Your task to perform on an android device: Check the weather Image 0: 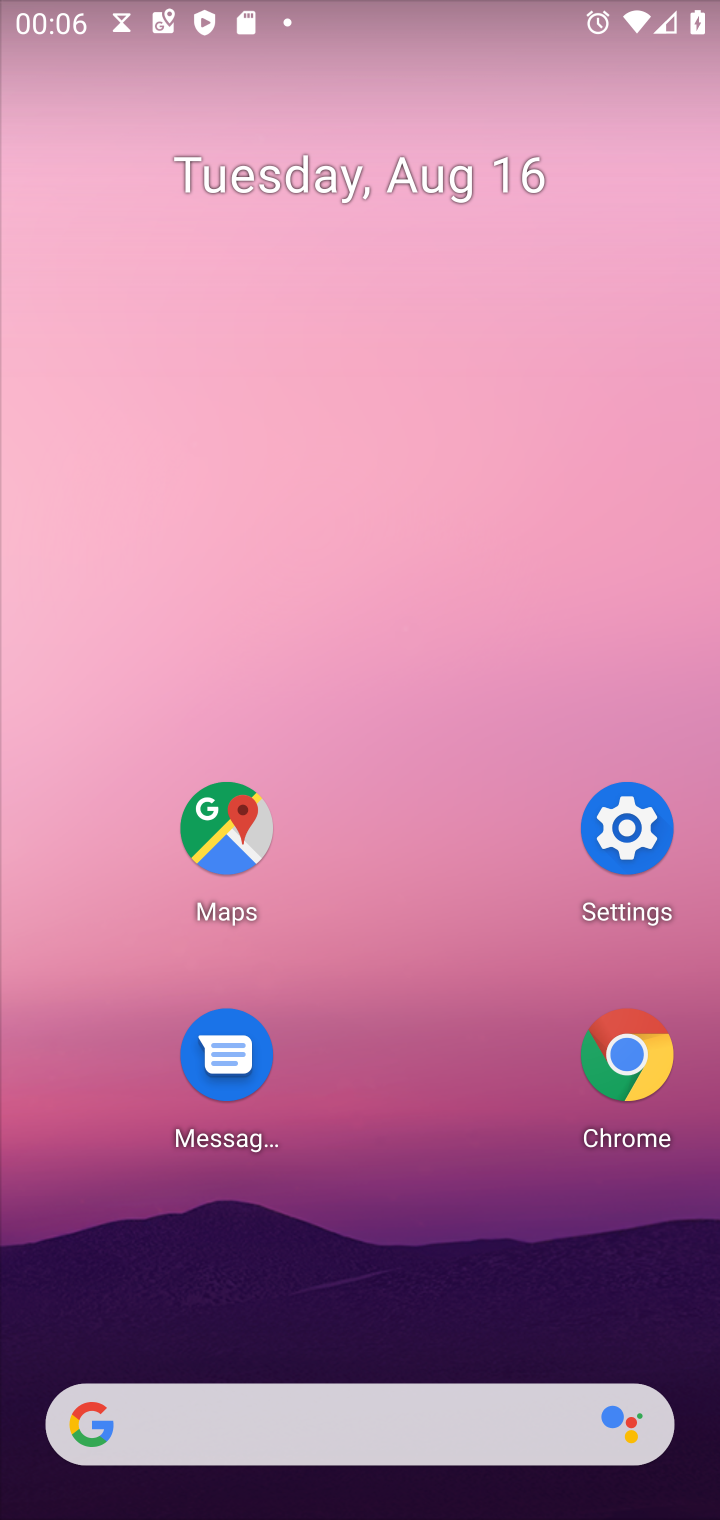
Step 0: press home button
Your task to perform on an android device: Check the weather Image 1: 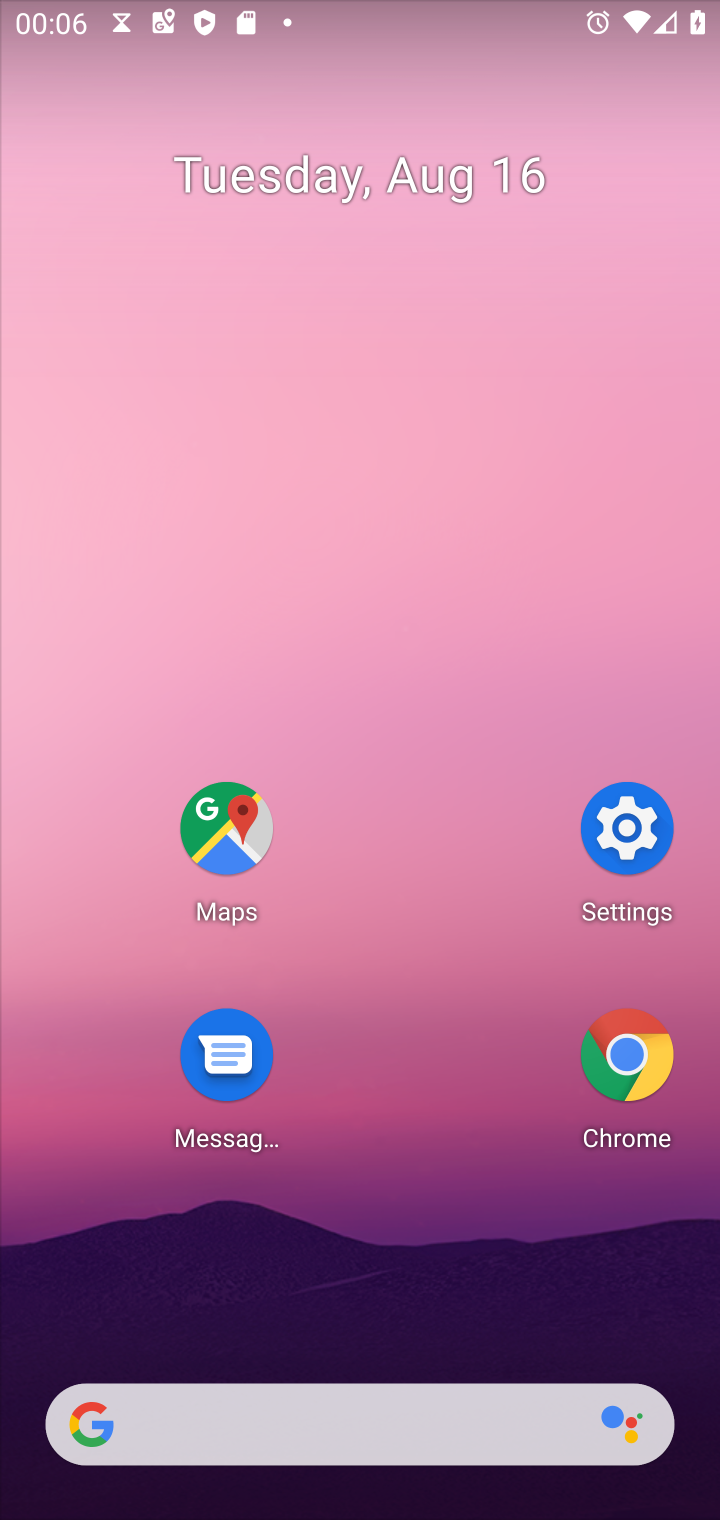
Step 1: click (304, 1425)
Your task to perform on an android device: Check the weather Image 2: 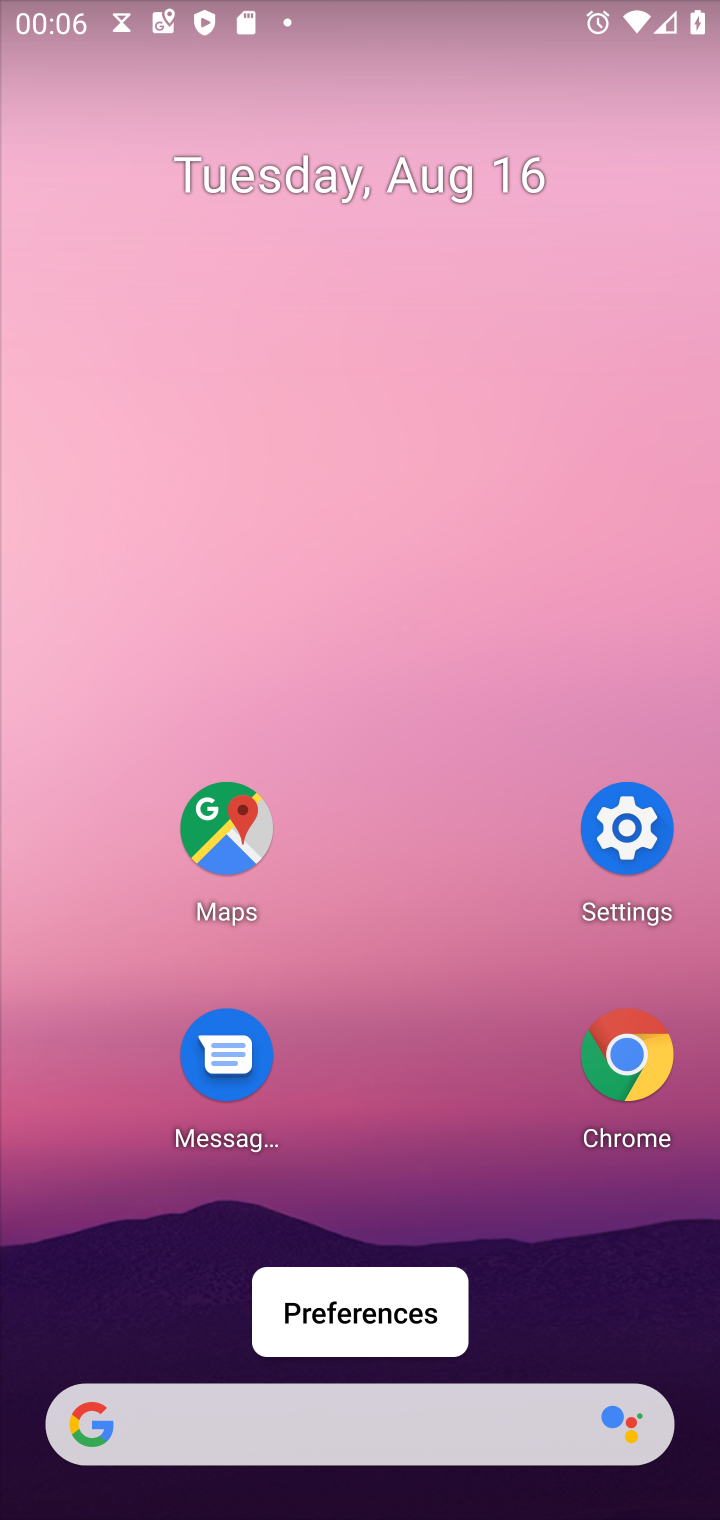
Step 2: click (296, 1430)
Your task to perform on an android device: Check the weather Image 3: 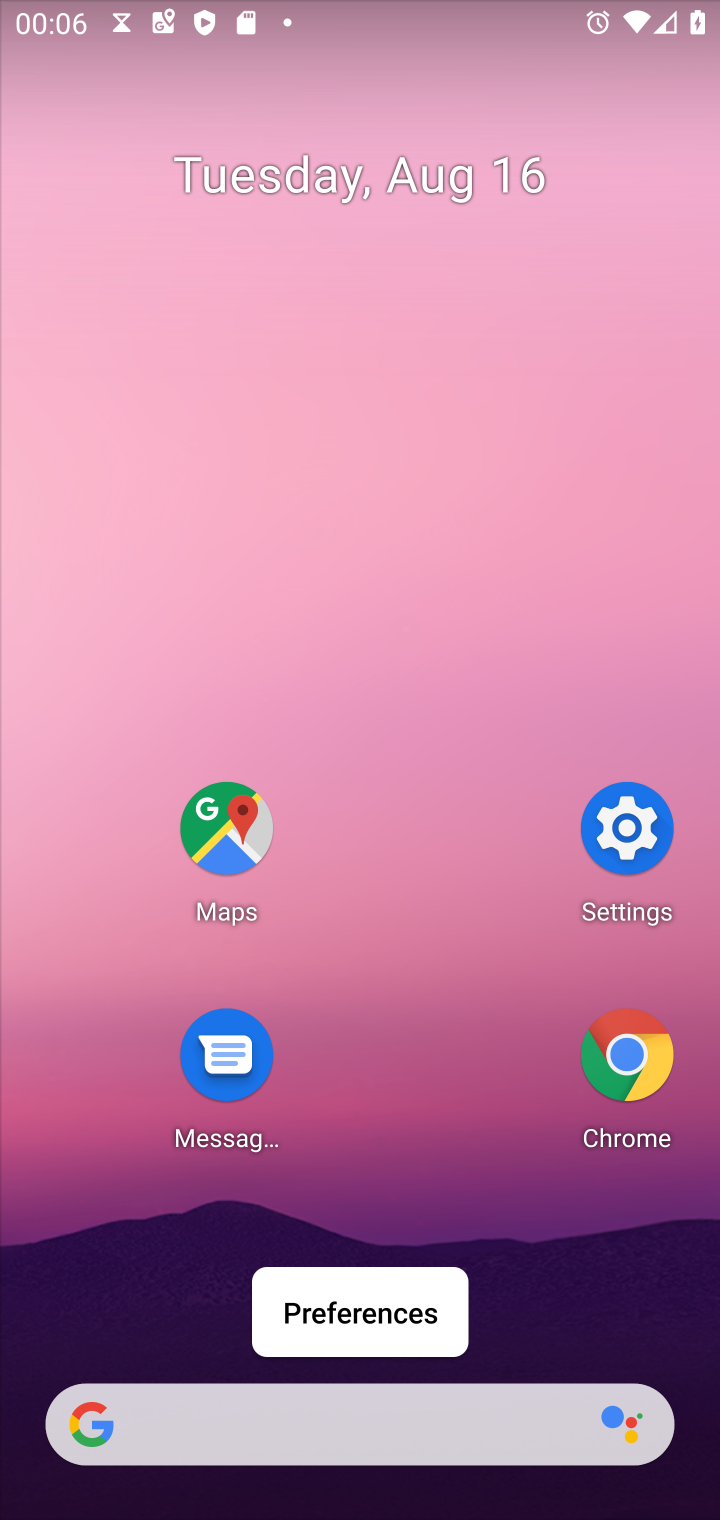
Step 3: click (296, 1430)
Your task to perform on an android device: Check the weather Image 4: 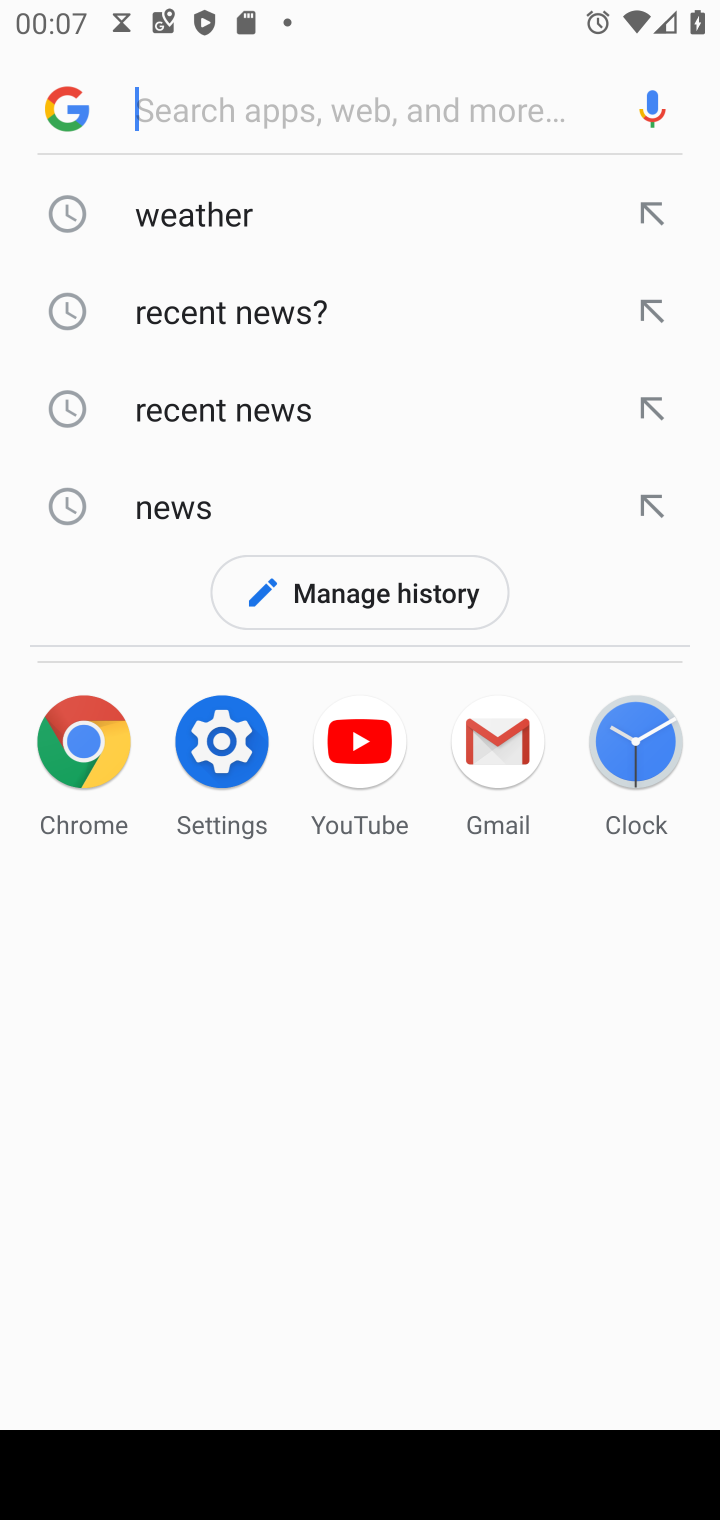
Step 4: click (143, 213)
Your task to perform on an android device: Check the weather Image 5: 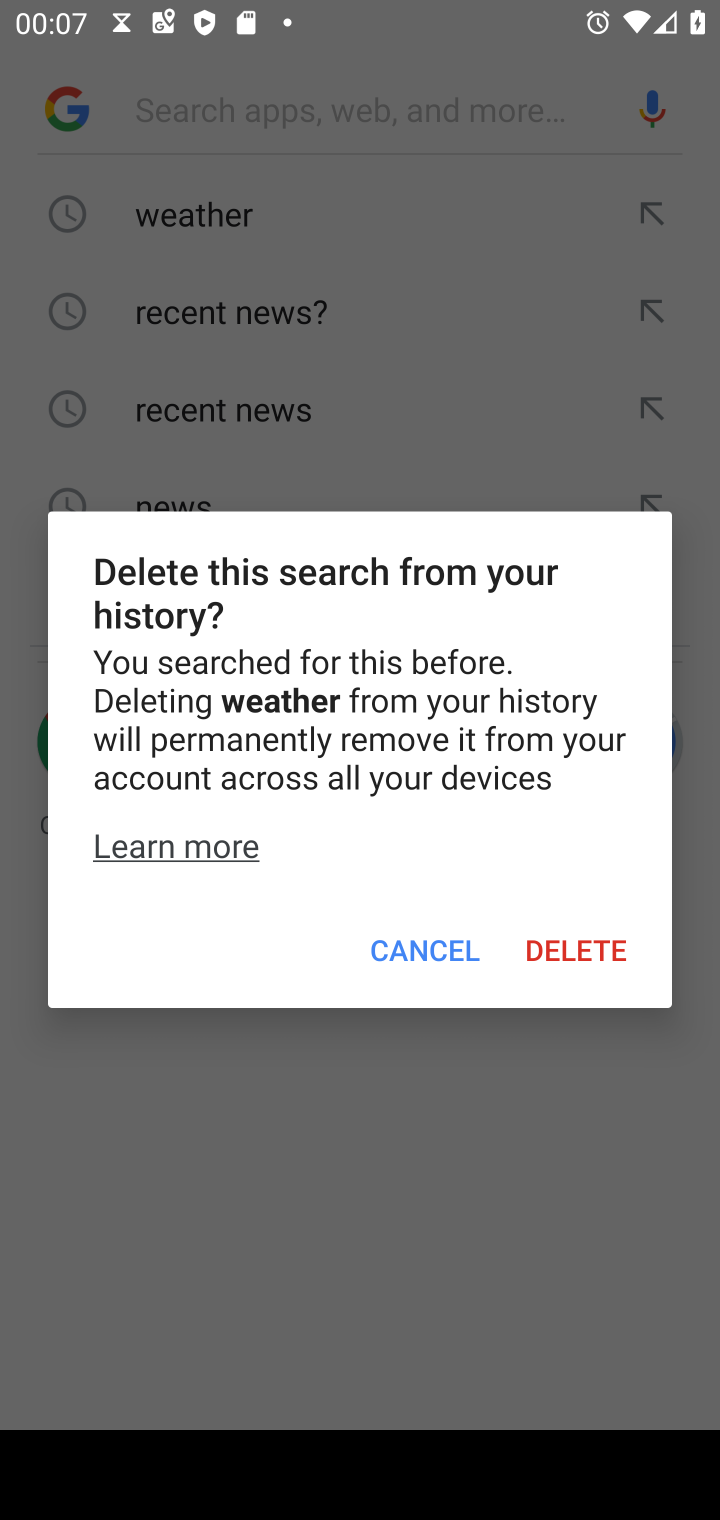
Step 5: click (378, 944)
Your task to perform on an android device: Check the weather Image 6: 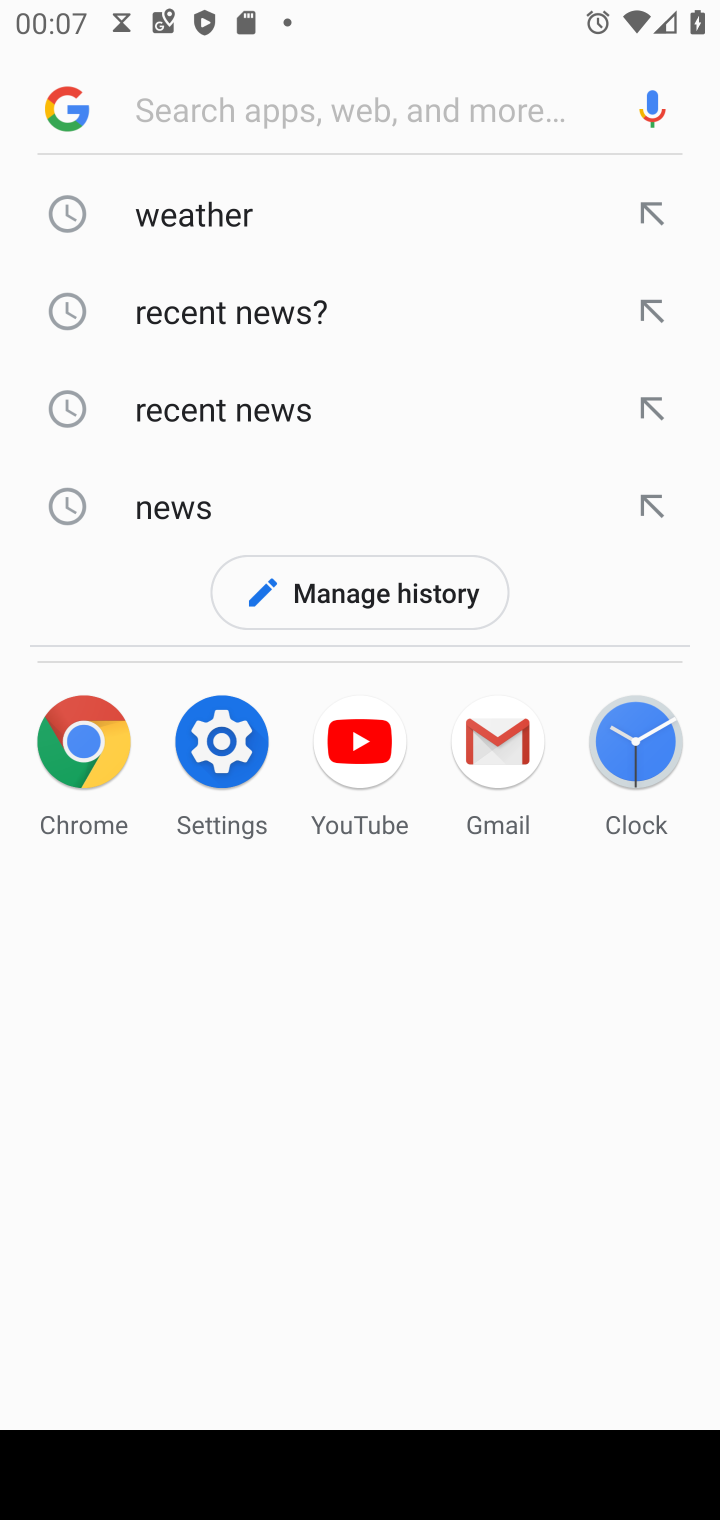
Step 6: click (65, 210)
Your task to perform on an android device: Check the weather Image 7: 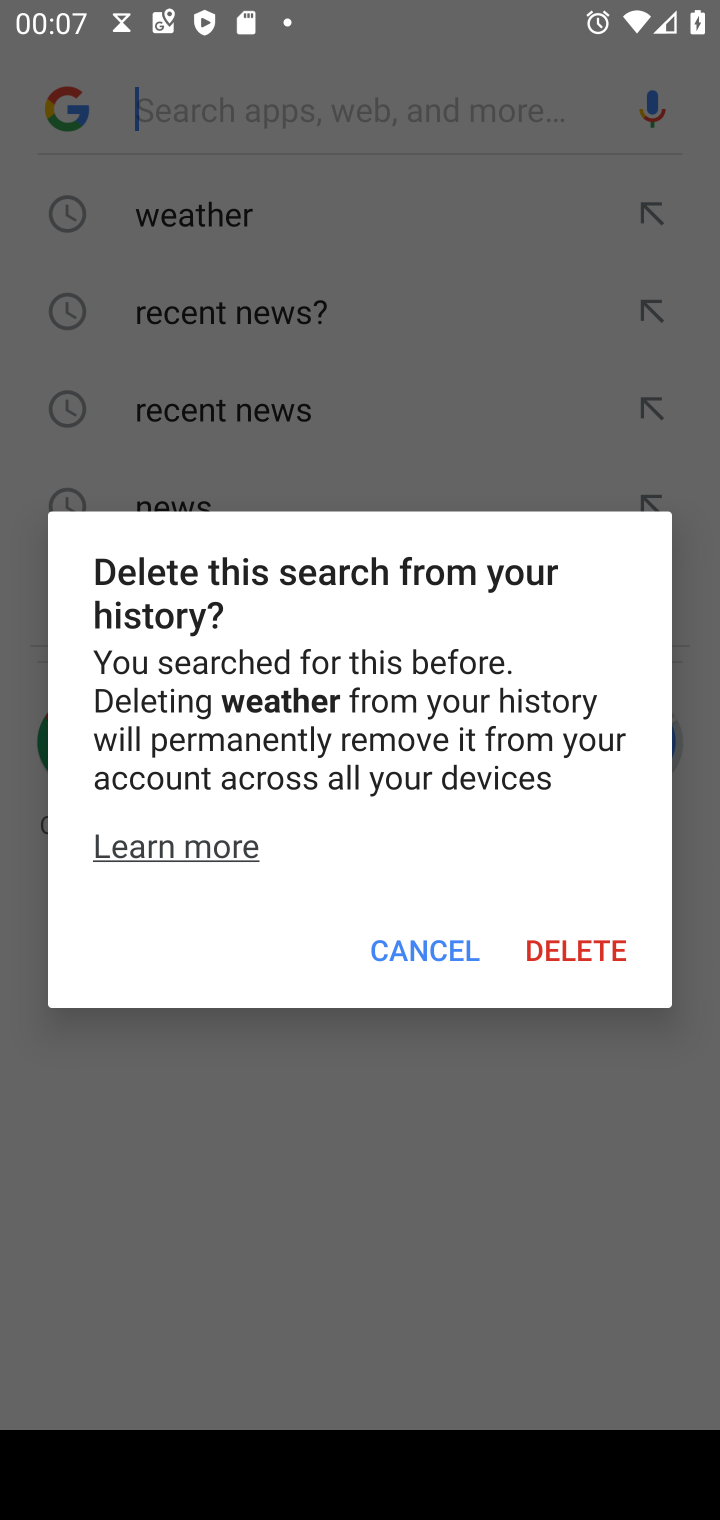
Step 7: click (421, 946)
Your task to perform on an android device: Check the weather Image 8: 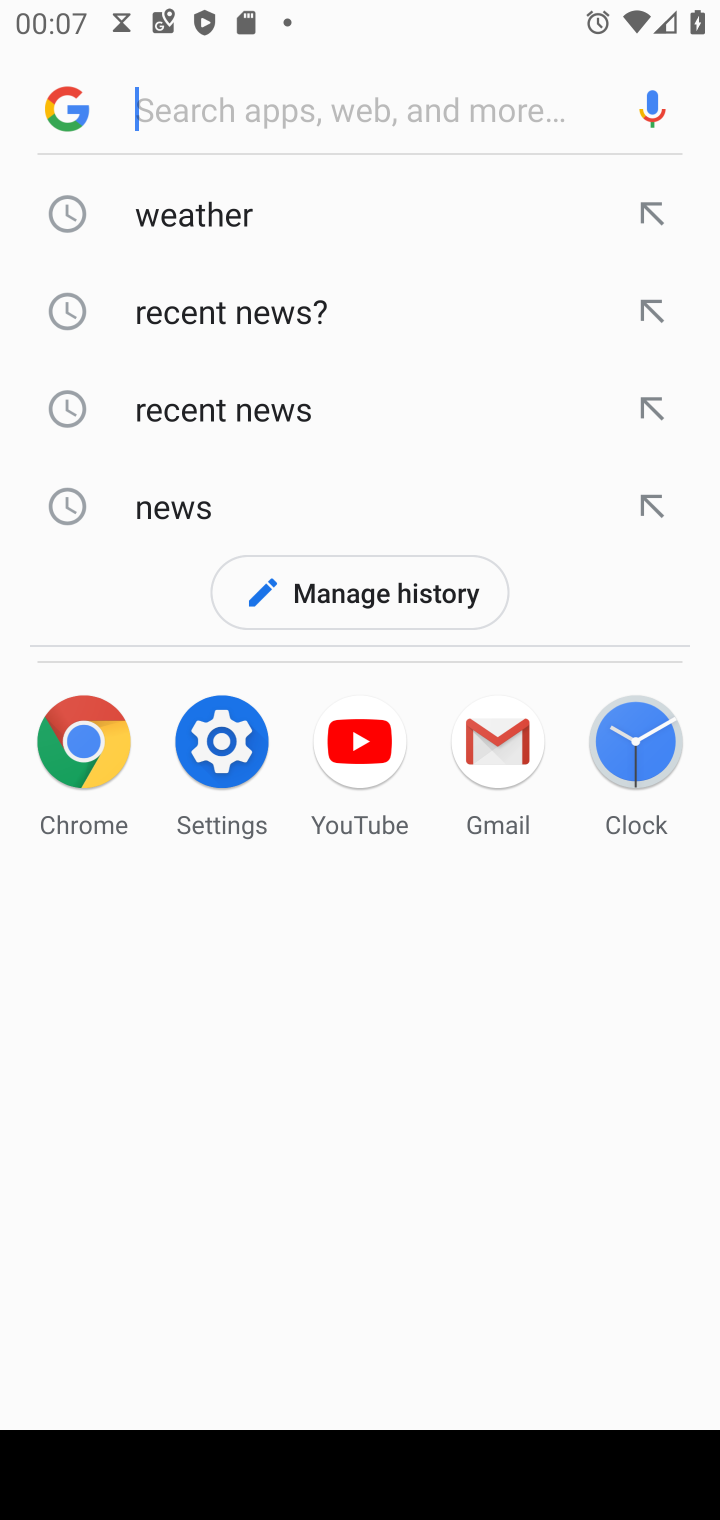
Step 8: click (262, 211)
Your task to perform on an android device: Check the weather Image 9: 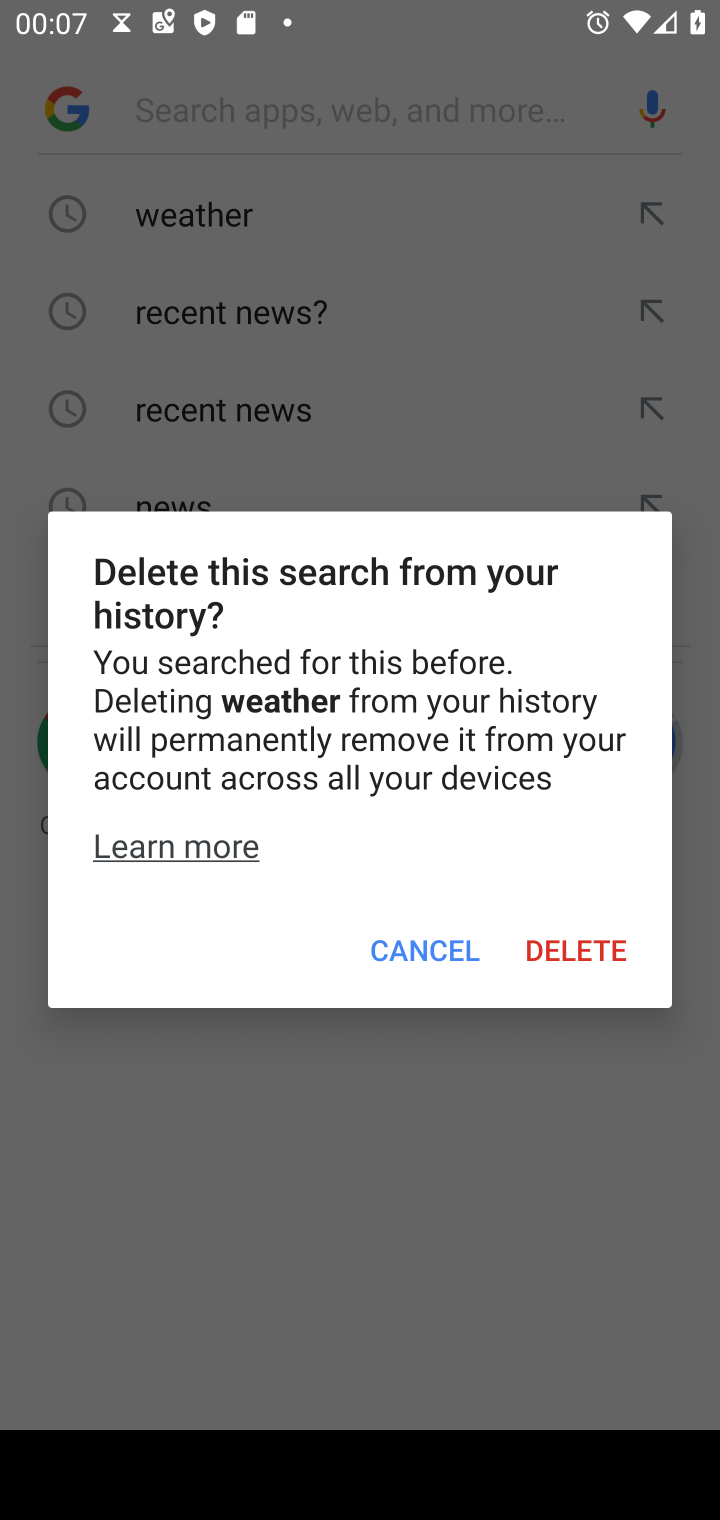
Step 9: click (425, 958)
Your task to perform on an android device: Check the weather Image 10: 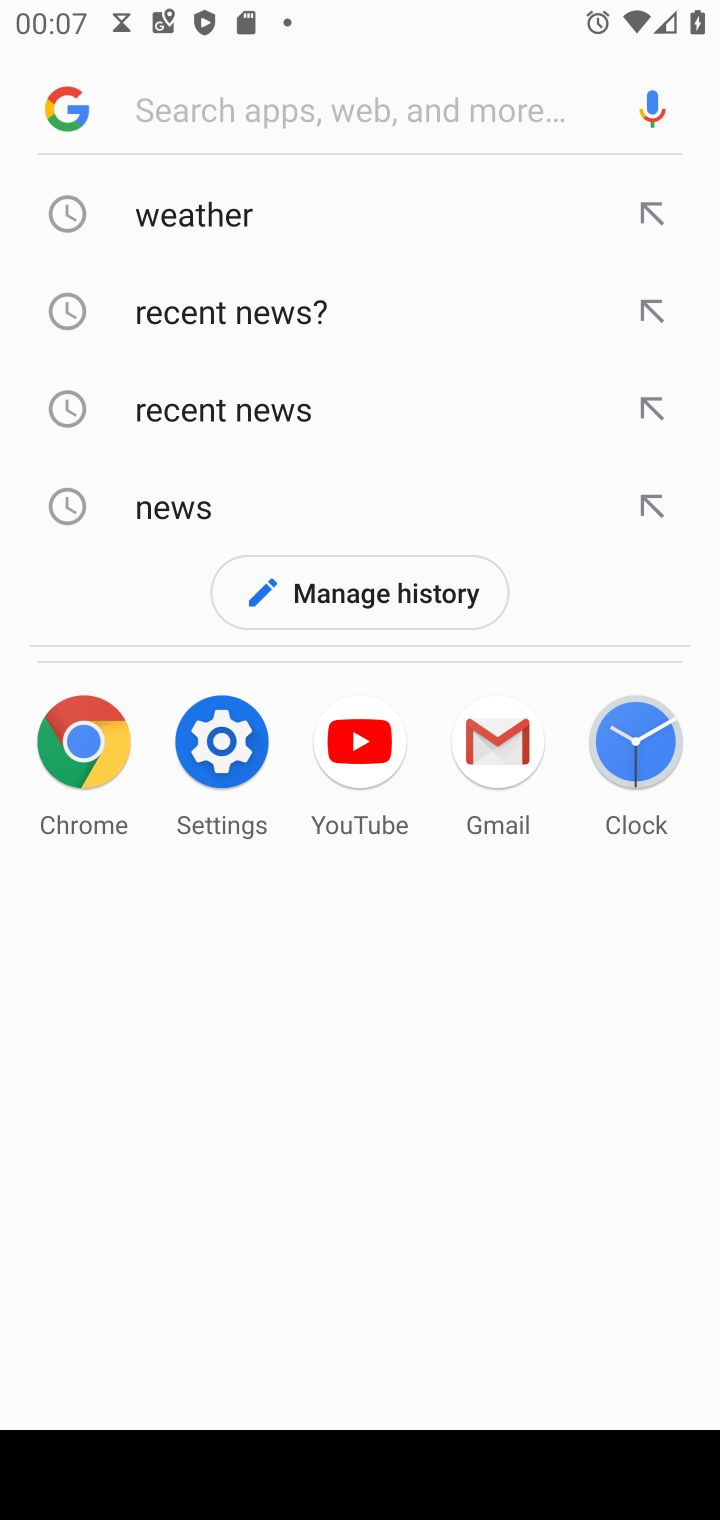
Step 10: click (654, 200)
Your task to perform on an android device: Check the weather Image 11: 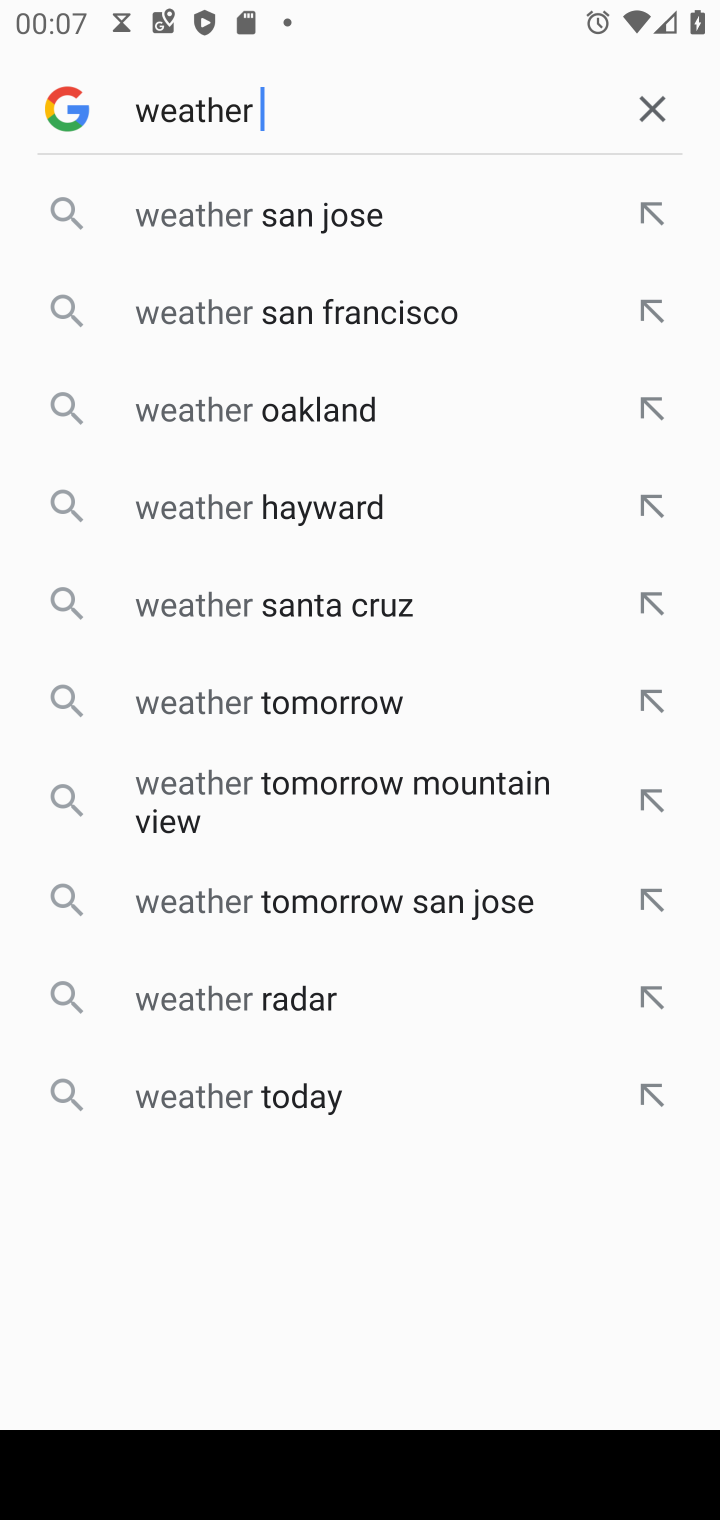
Step 11: press back button
Your task to perform on an android device: Check the weather Image 12: 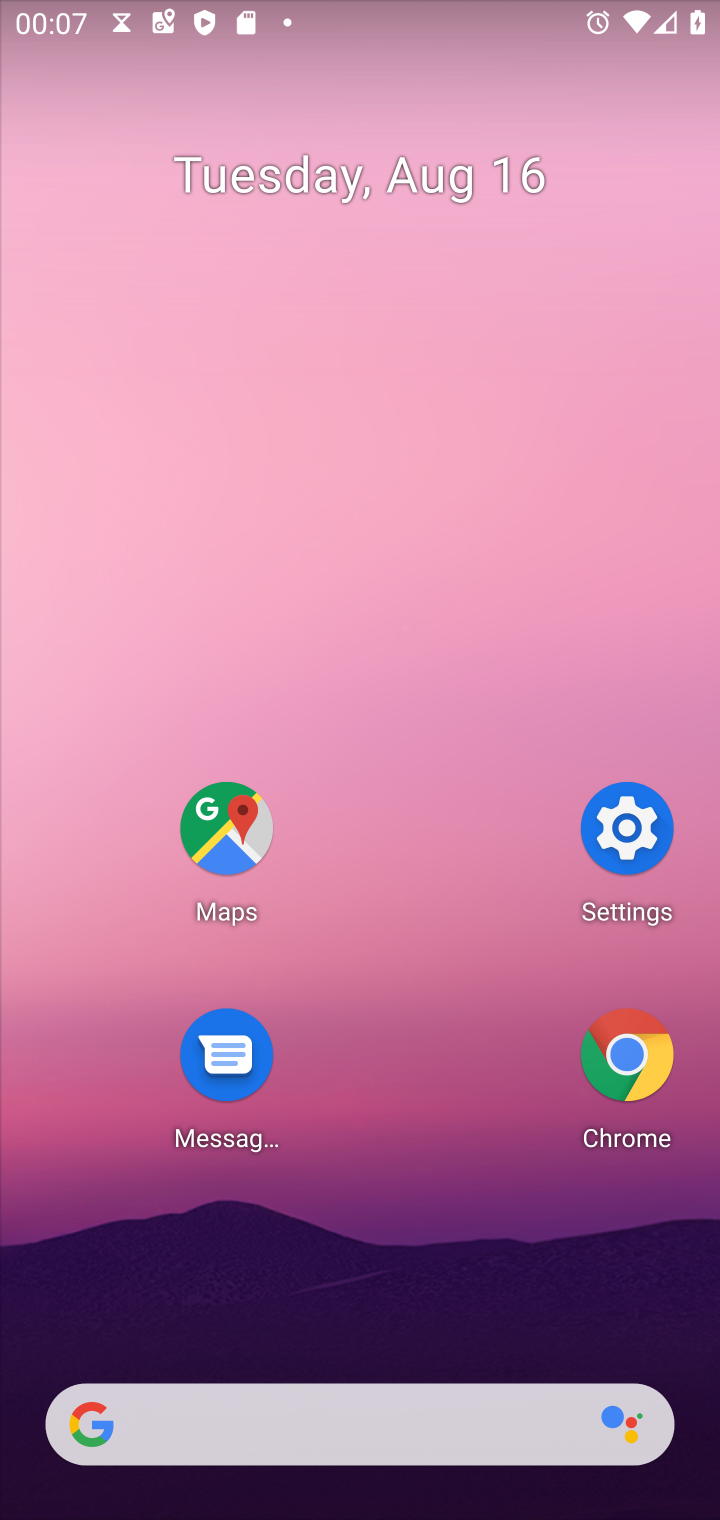
Step 12: click (263, 1416)
Your task to perform on an android device: Check the weather Image 13: 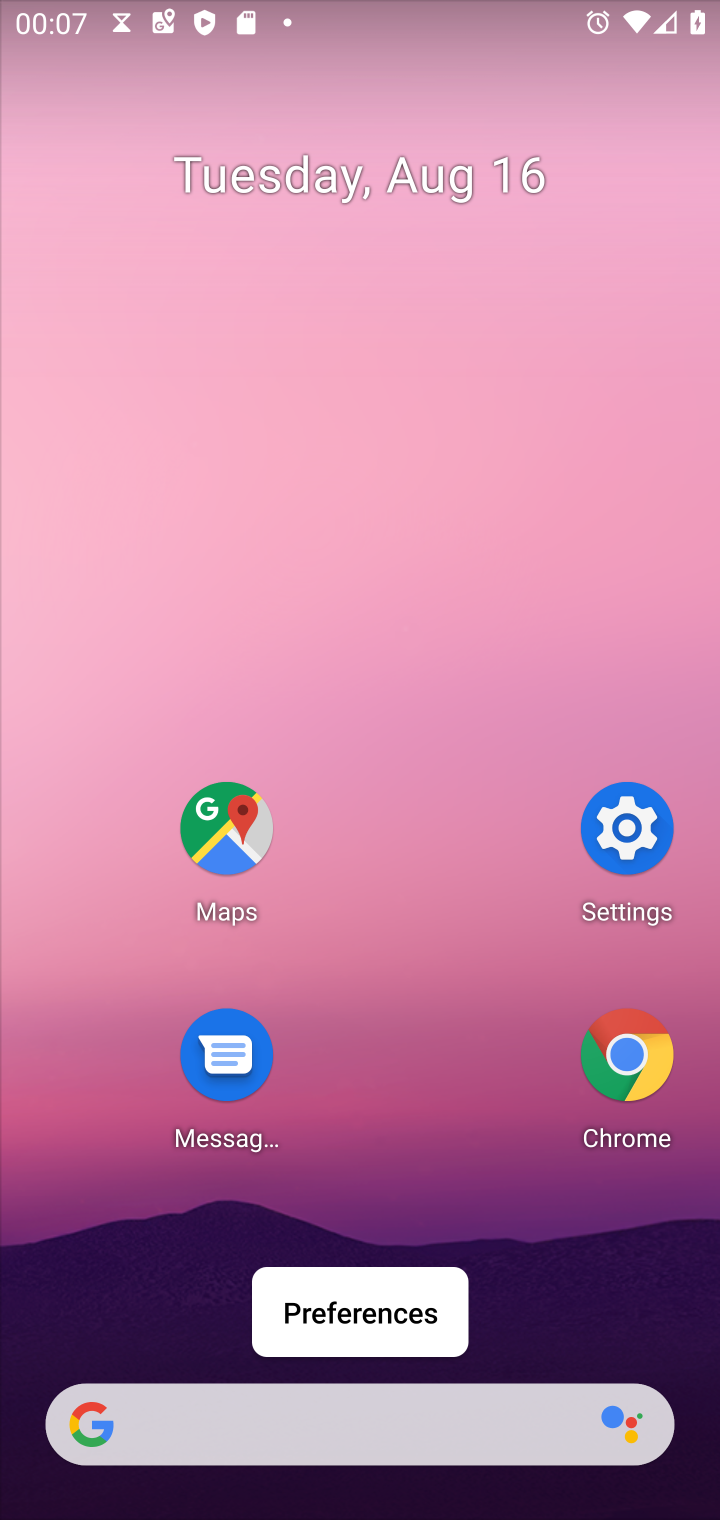
Step 13: drag from (269, 1166) to (305, 512)
Your task to perform on an android device: Check the weather Image 14: 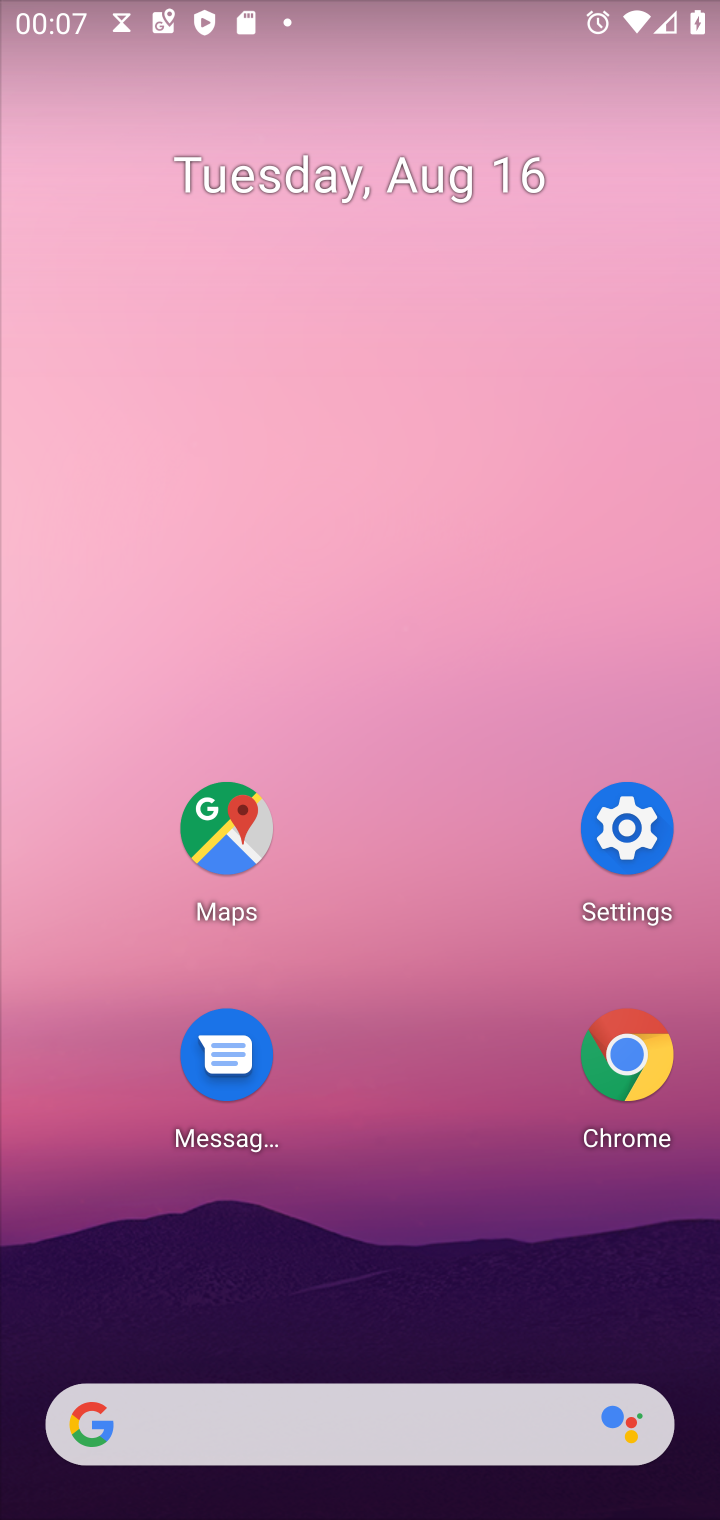
Step 14: click (277, 1414)
Your task to perform on an android device: Check the weather Image 15: 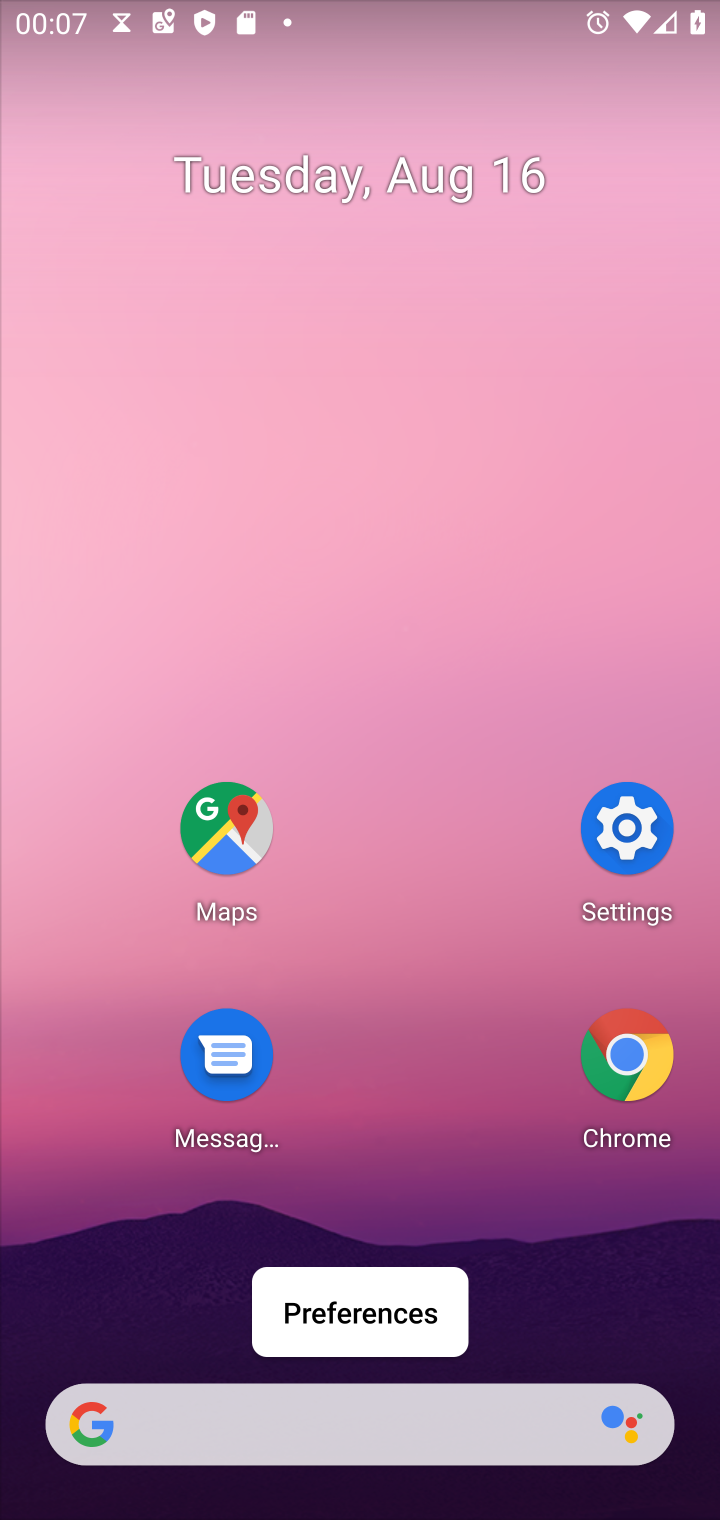
Step 15: click (276, 1414)
Your task to perform on an android device: Check the weather Image 16: 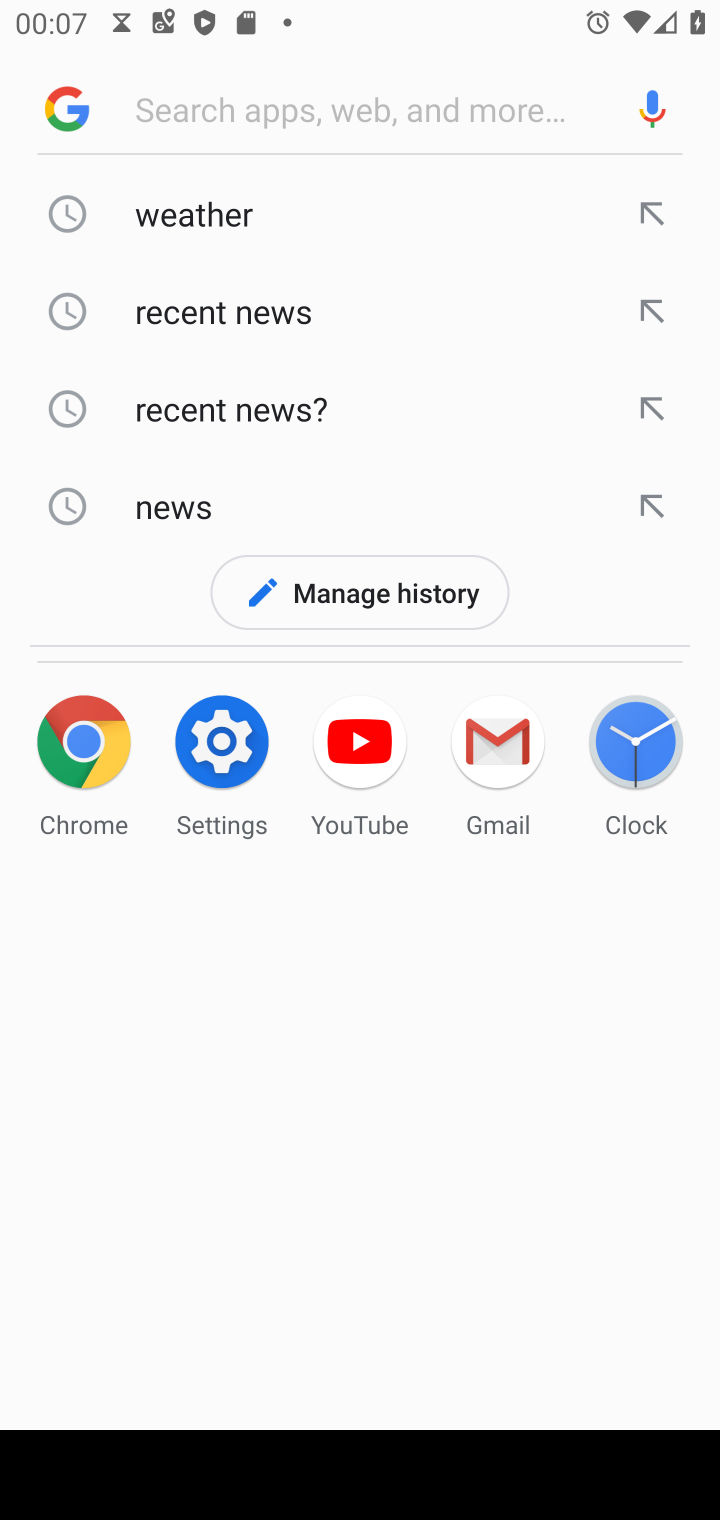
Step 16: click (276, 1414)
Your task to perform on an android device: Check the weather Image 17: 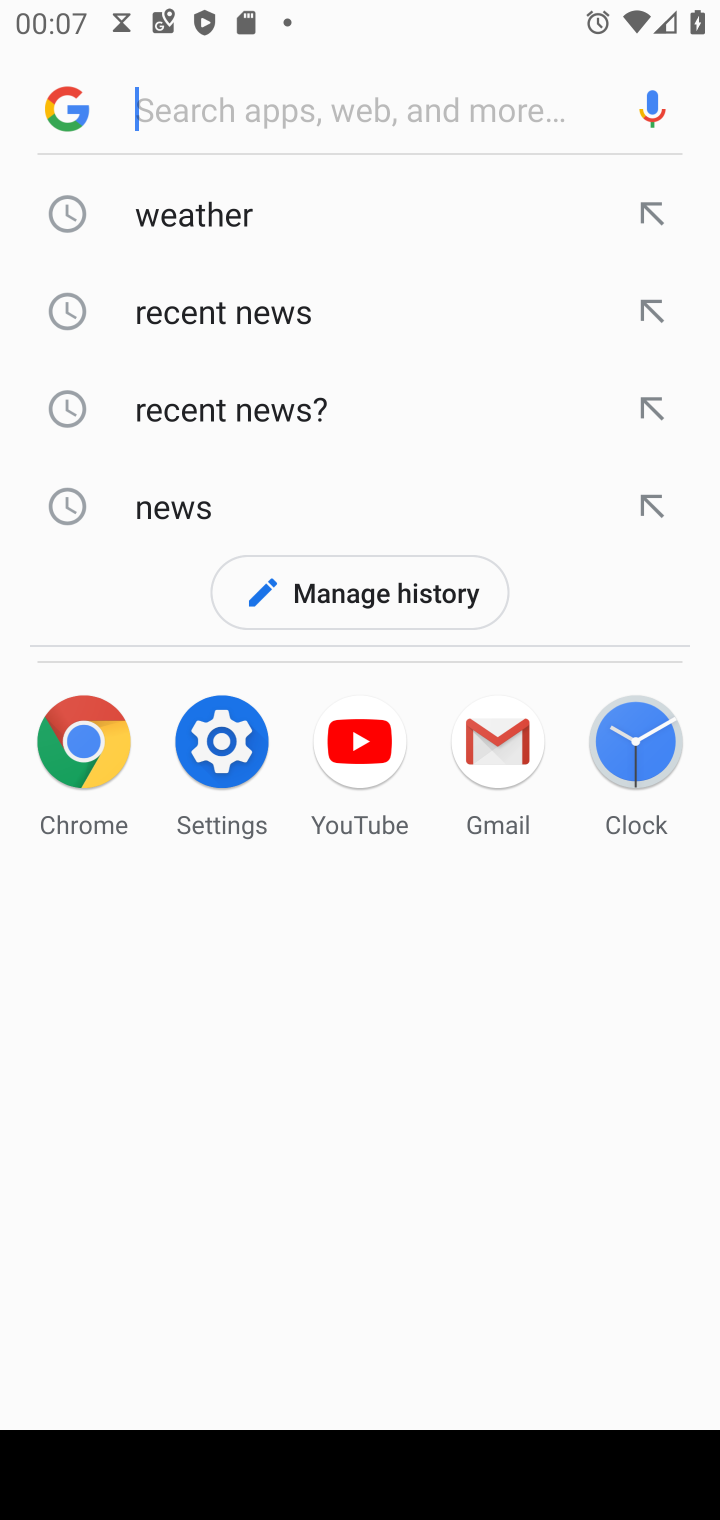
Step 17: click (192, 215)
Your task to perform on an android device: Check the weather Image 18: 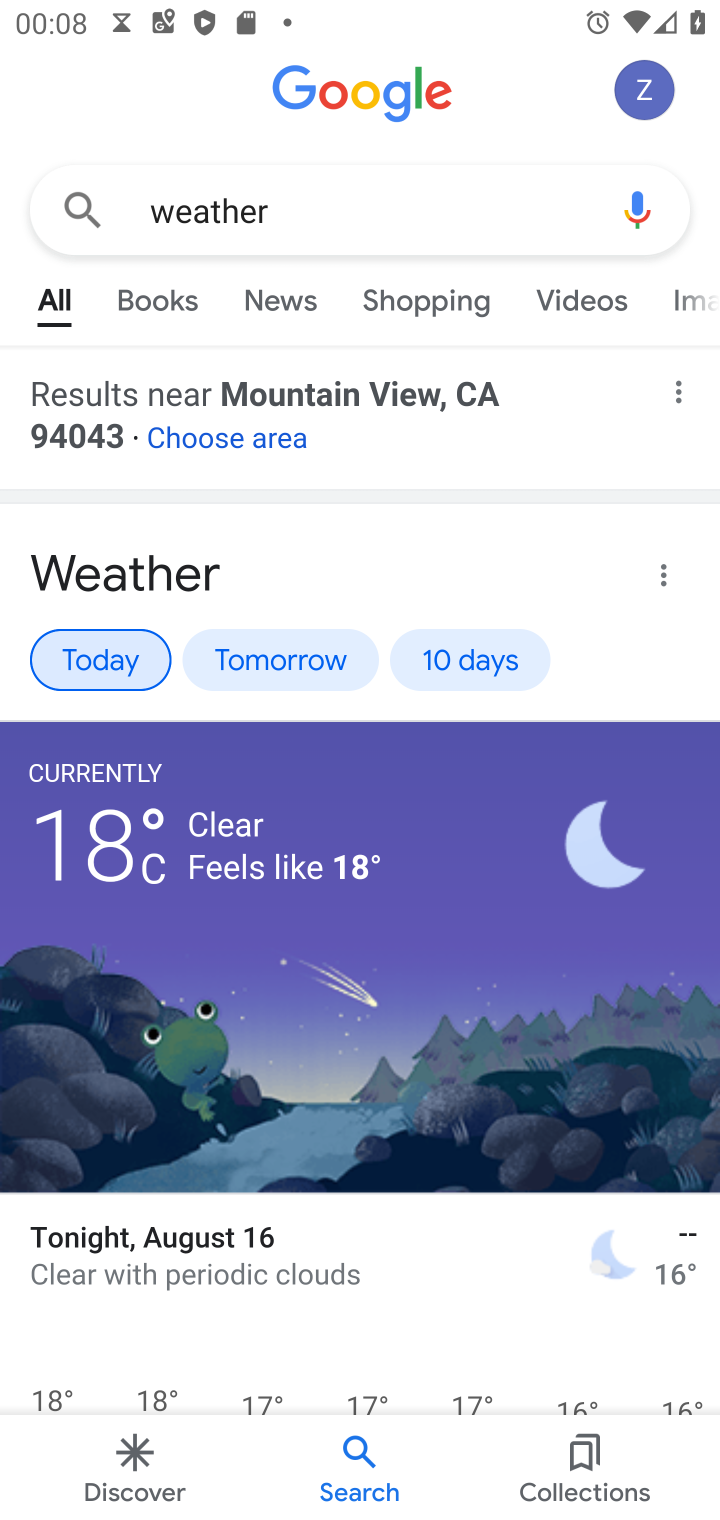
Step 18: task complete